Your task to perform on an android device: Toggle the flashlight Image 0: 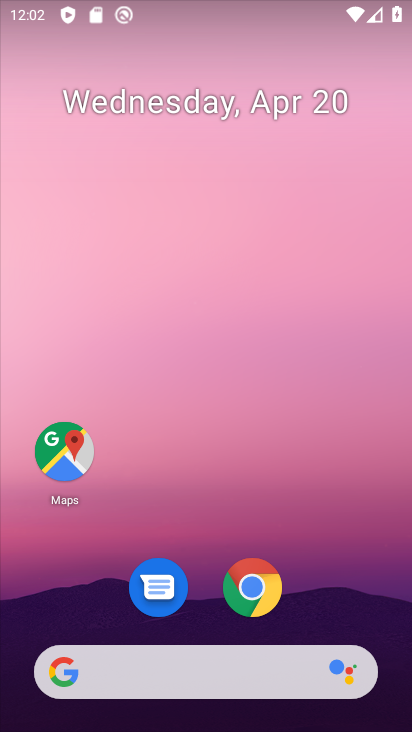
Step 0: drag from (206, 595) to (308, 57)
Your task to perform on an android device: Toggle the flashlight Image 1: 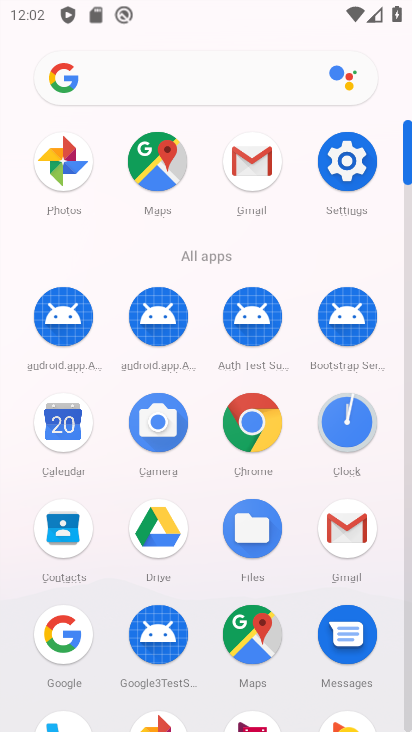
Step 1: click (351, 154)
Your task to perform on an android device: Toggle the flashlight Image 2: 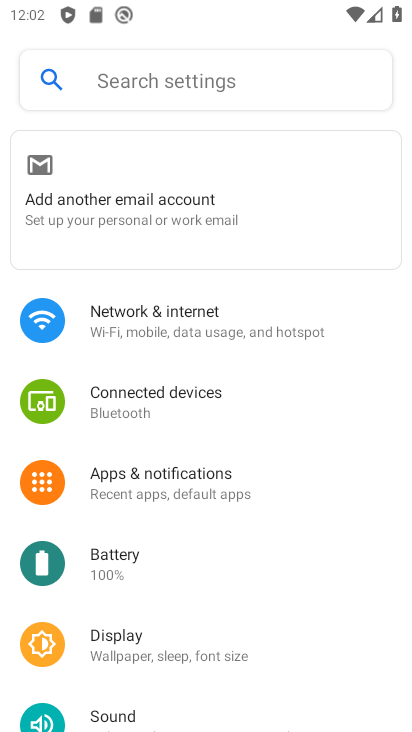
Step 2: click (228, 94)
Your task to perform on an android device: Toggle the flashlight Image 3: 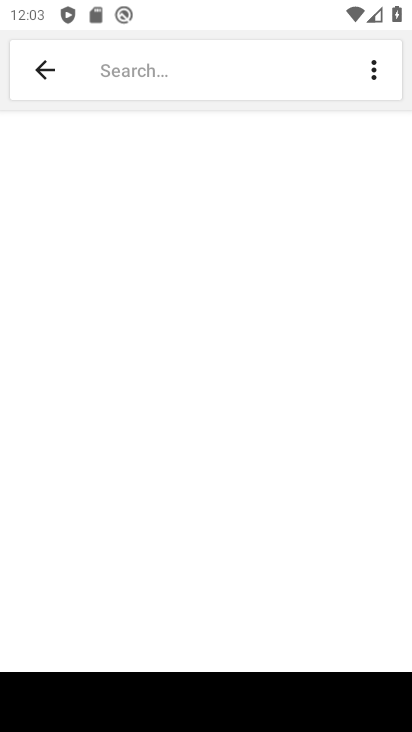
Step 3: type "flashlight"
Your task to perform on an android device: Toggle the flashlight Image 4: 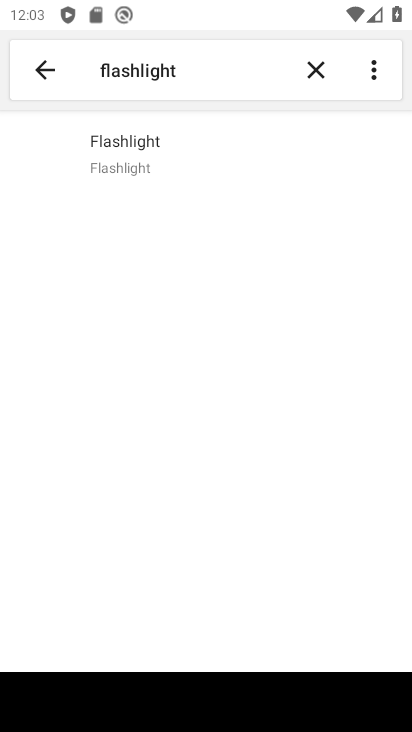
Step 4: click (147, 160)
Your task to perform on an android device: Toggle the flashlight Image 5: 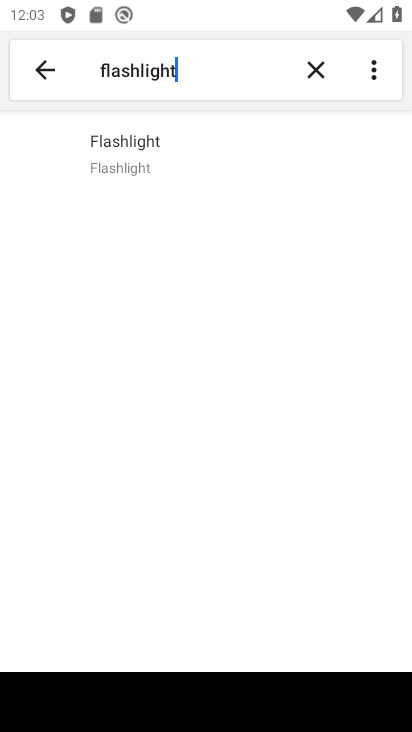
Step 5: click (146, 156)
Your task to perform on an android device: Toggle the flashlight Image 6: 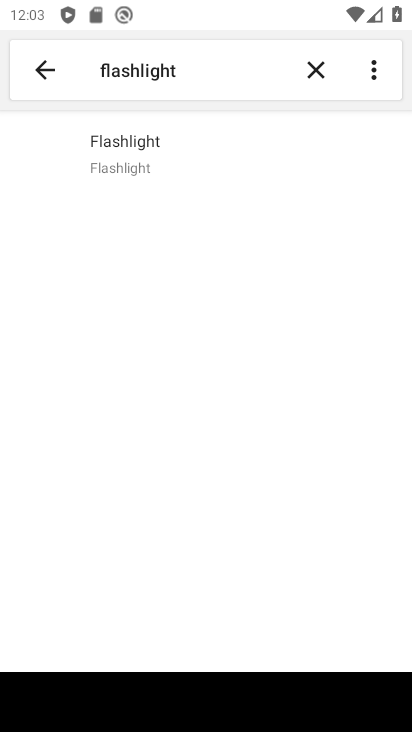
Step 6: click (124, 135)
Your task to perform on an android device: Toggle the flashlight Image 7: 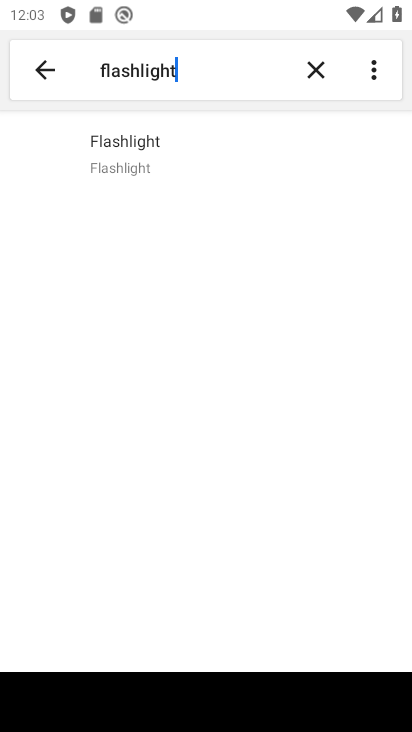
Step 7: click (124, 135)
Your task to perform on an android device: Toggle the flashlight Image 8: 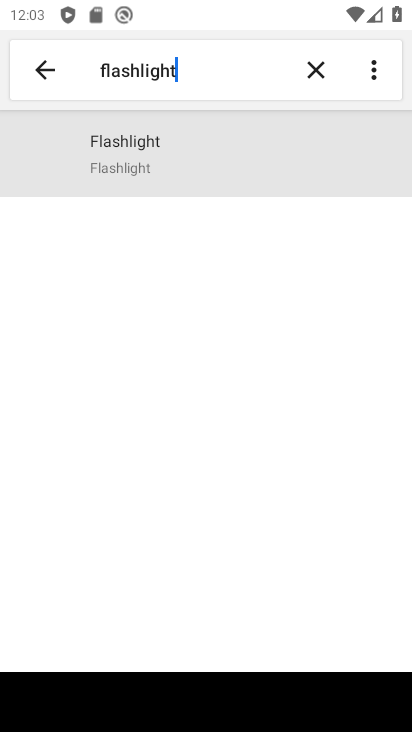
Step 8: click (124, 135)
Your task to perform on an android device: Toggle the flashlight Image 9: 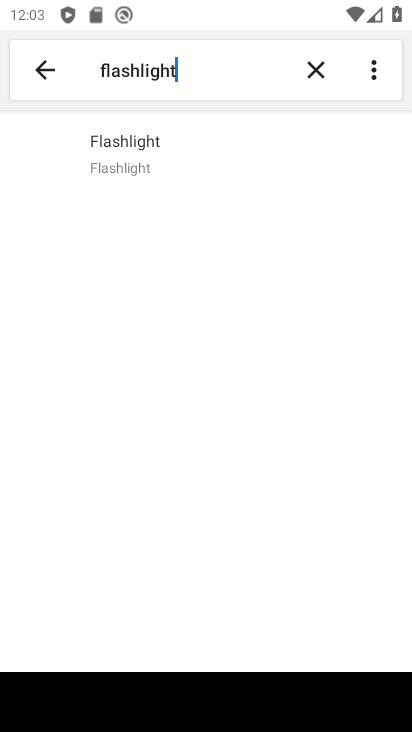
Step 9: task complete